Your task to perform on an android device: clear all cookies in the chrome app Image 0: 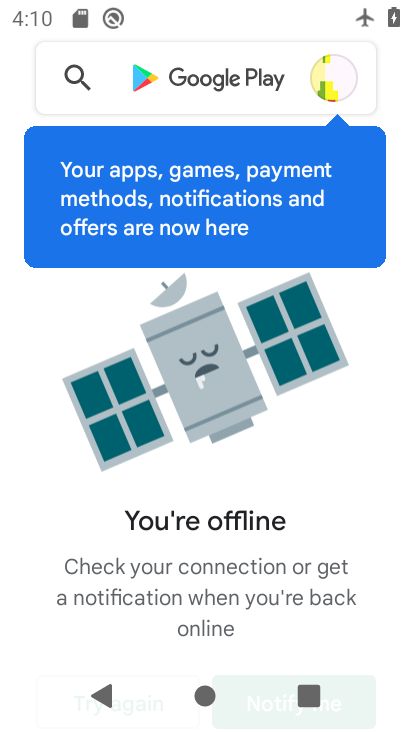
Step 0: press home button
Your task to perform on an android device: clear all cookies in the chrome app Image 1: 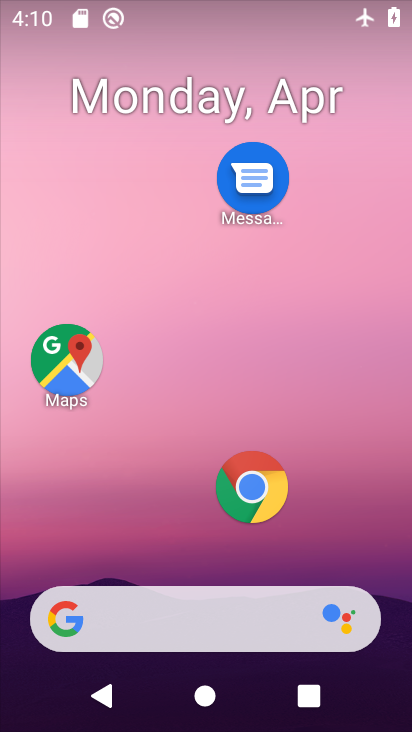
Step 1: click (257, 488)
Your task to perform on an android device: clear all cookies in the chrome app Image 2: 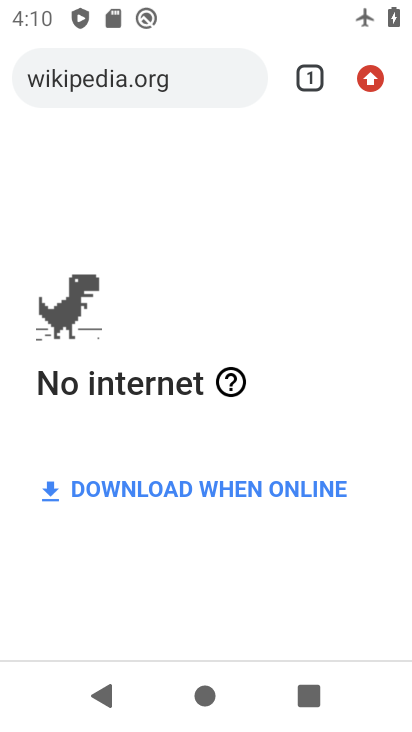
Step 2: click (364, 65)
Your task to perform on an android device: clear all cookies in the chrome app Image 3: 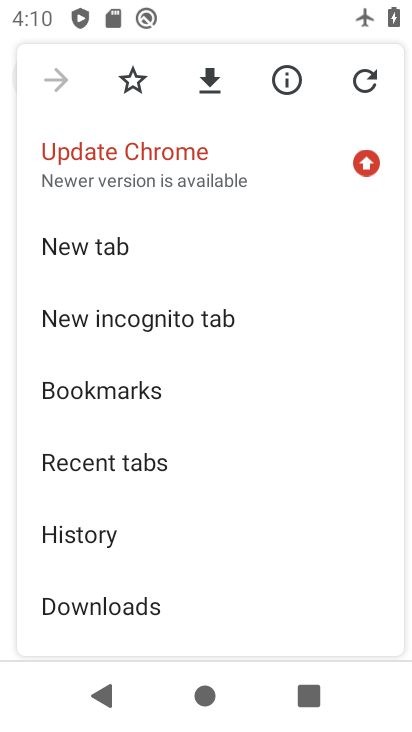
Step 3: click (69, 536)
Your task to perform on an android device: clear all cookies in the chrome app Image 4: 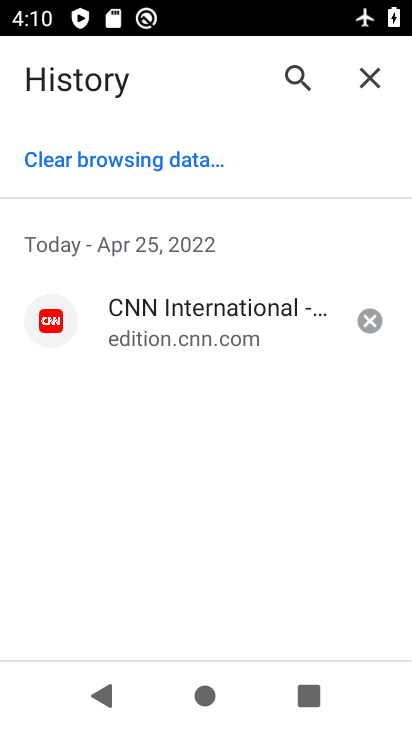
Step 4: click (158, 164)
Your task to perform on an android device: clear all cookies in the chrome app Image 5: 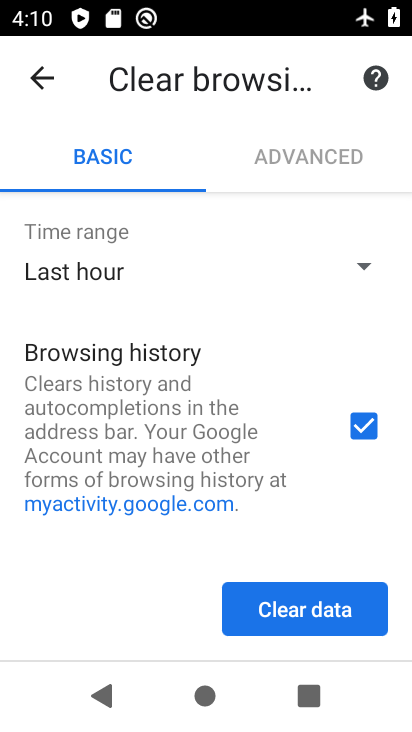
Step 5: click (229, 451)
Your task to perform on an android device: clear all cookies in the chrome app Image 6: 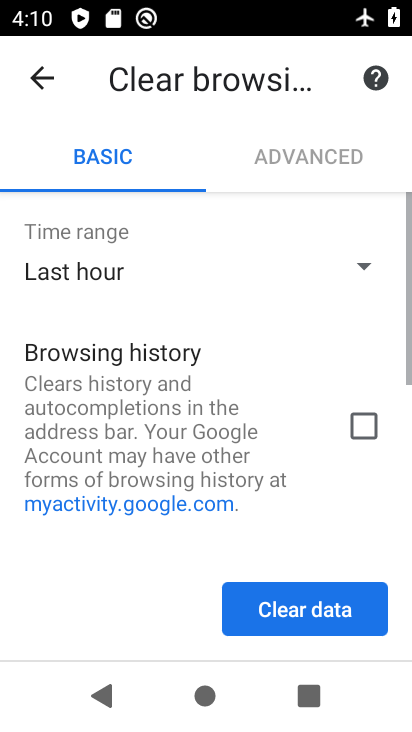
Step 6: drag from (195, 466) to (323, 85)
Your task to perform on an android device: clear all cookies in the chrome app Image 7: 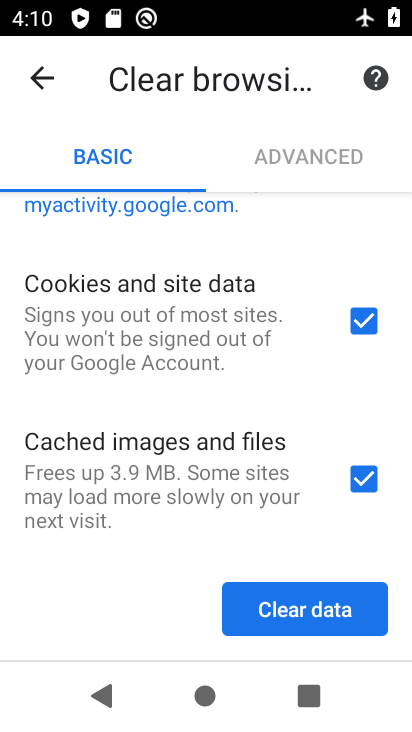
Step 7: click (278, 462)
Your task to perform on an android device: clear all cookies in the chrome app Image 8: 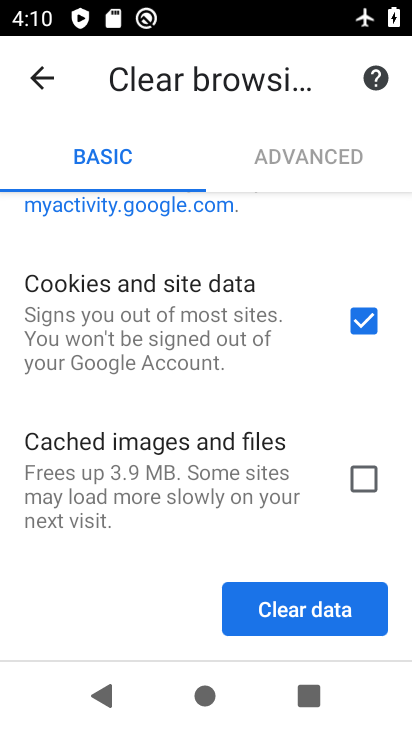
Step 8: click (318, 594)
Your task to perform on an android device: clear all cookies in the chrome app Image 9: 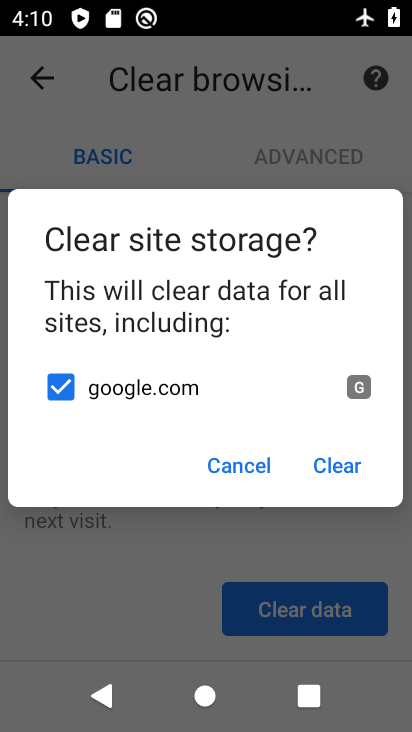
Step 9: click (348, 464)
Your task to perform on an android device: clear all cookies in the chrome app Image 10: 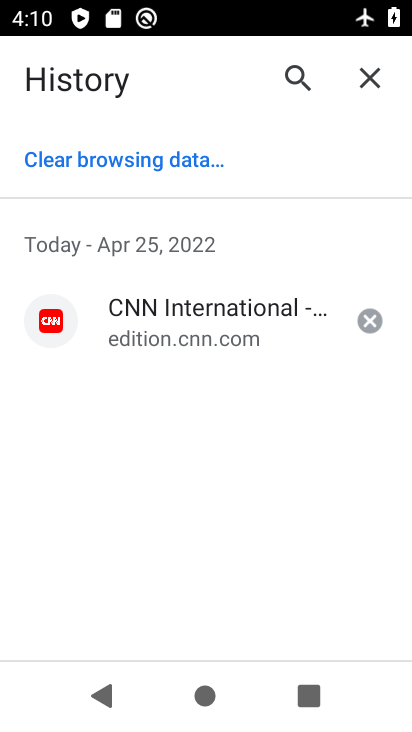
Step 10: task complete